Your task to perform on an android device: turn off improve location accuracy Image 0: 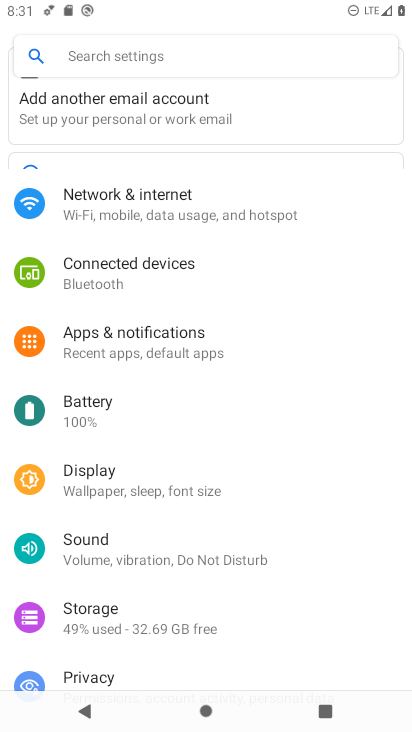
Step 0: click (255, 596)
Your task to perform on an android device: turn off improve location accuracy Image 1: 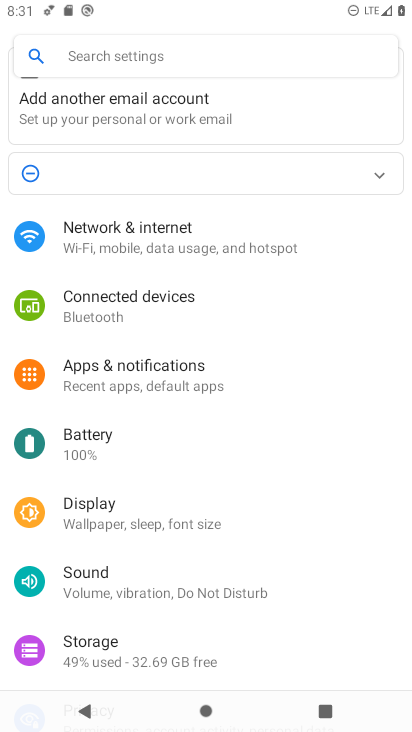
Step 1: press home button
Your task to perform on an android device: turn off improve location accuracy Image 2: 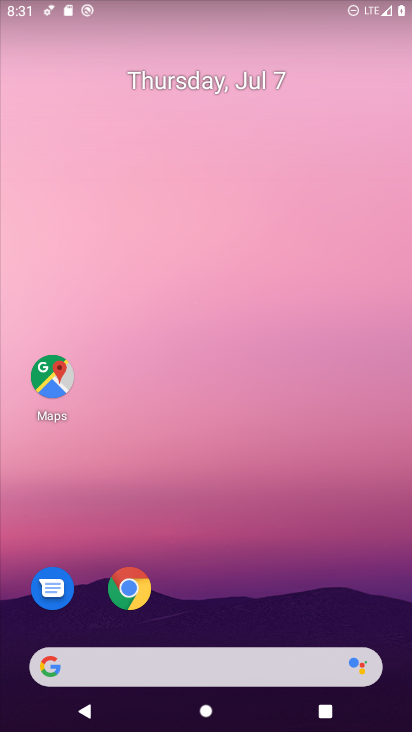
Step 2: drag from (262, 605) to (239, 137)
Your task to perform on an android device: turn off improve location accuracy Image 3: 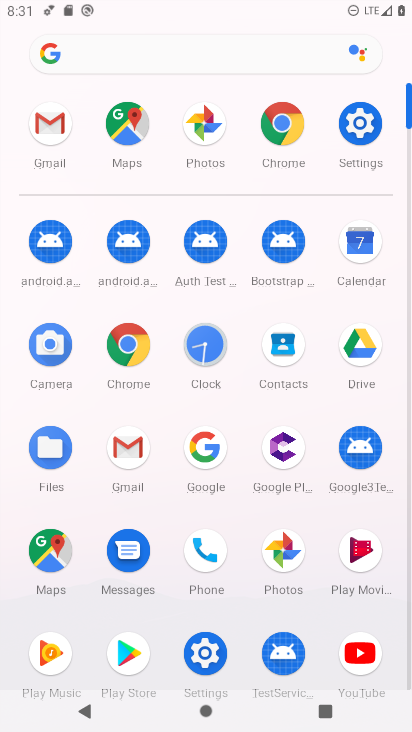
Step 3: click (367, 121)
Your task to perform on an android device: turn off improve location accuracy Image 4: 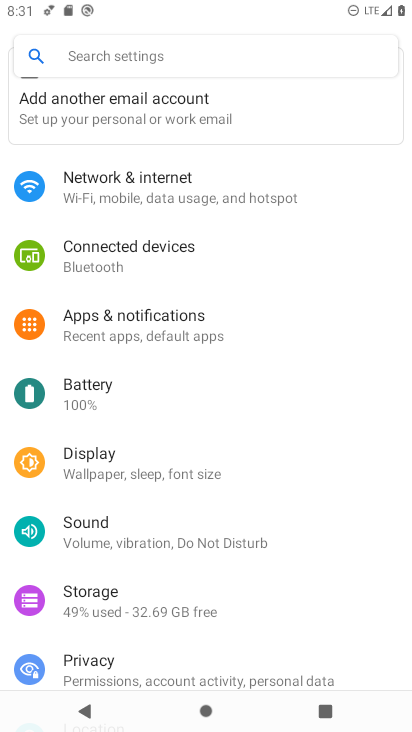
Step 4: drag from (140, 617) to (163, 328)
Your task to perform on an android device: turn off improve location accuracy Image 5: 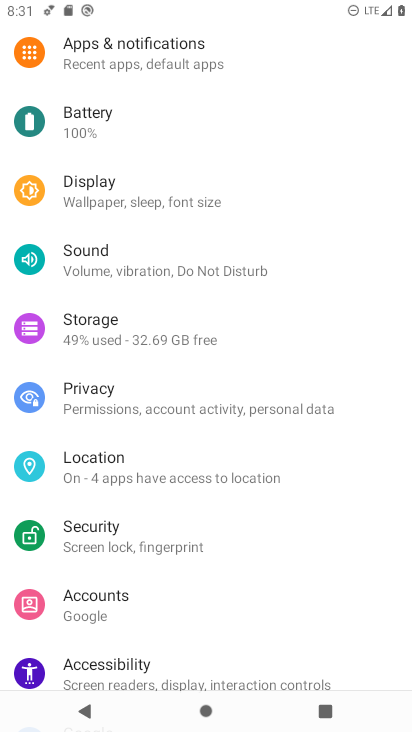
Step 5: click (139, 463)
Your task to perform on an android device: turn off improve location accuracy Image 6: 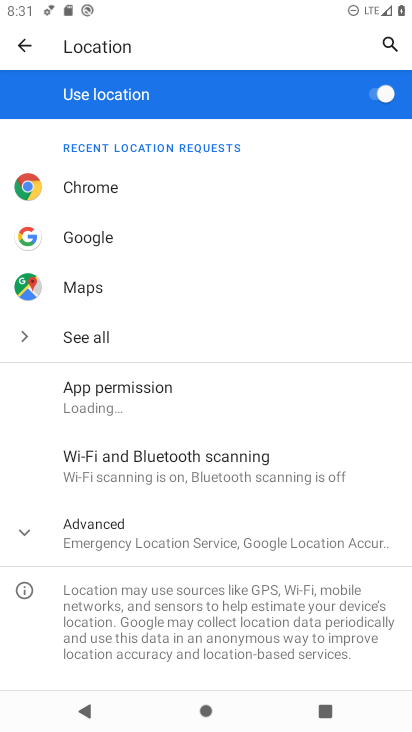
Step 6: click (161, 539)
Your task to perform on an android device: turn off improve location accuracy Image 7: 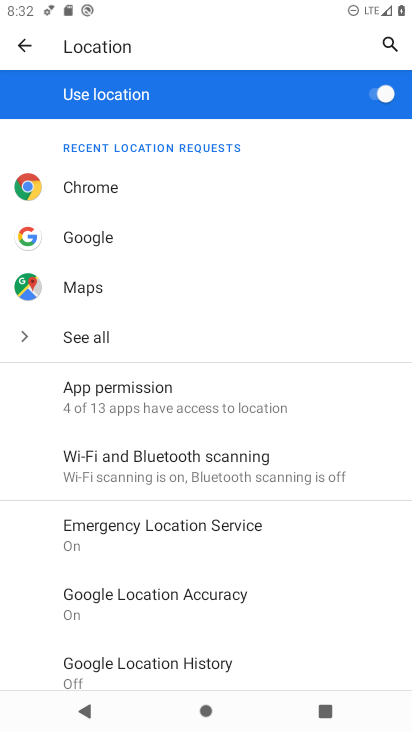
Step 7: click (165, 630)
Your task to perform on an android device: turn off improve location accuracy Image 8: 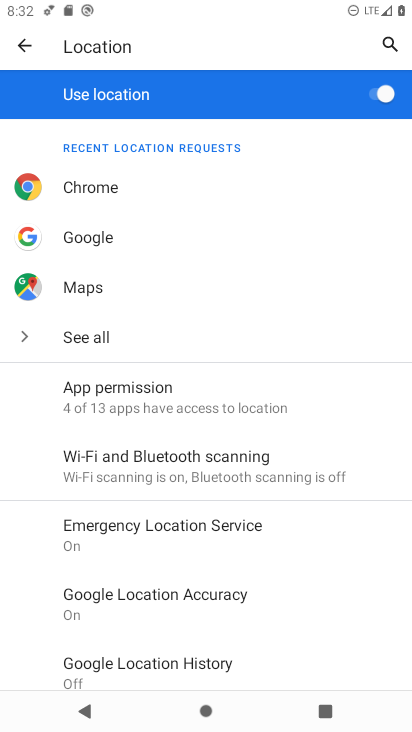
Step 8: click (165, 624)
Your task to perform on an android device: turn off improve location accuracy Image 9: 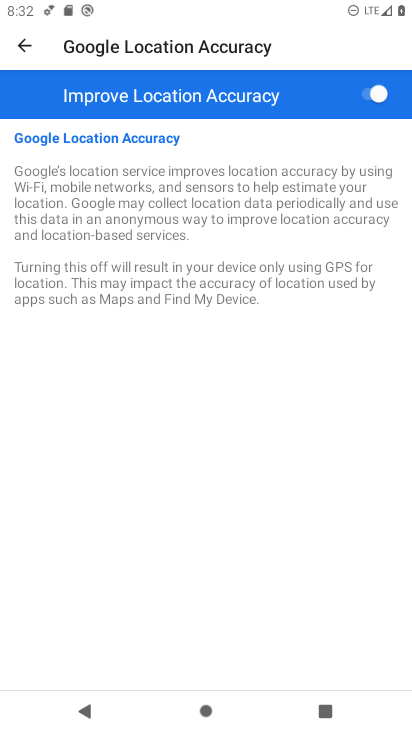
Step 9: click (371, 86)
Your task to perform on an android device: turn off improve location accuracy Image 10: 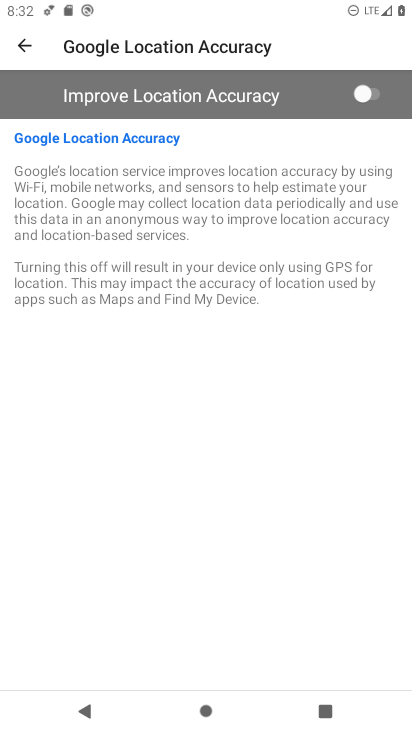
Step 10: task complete